Your task to perform on an android device: Open calendar and show me the fourth week of next month Image 0: 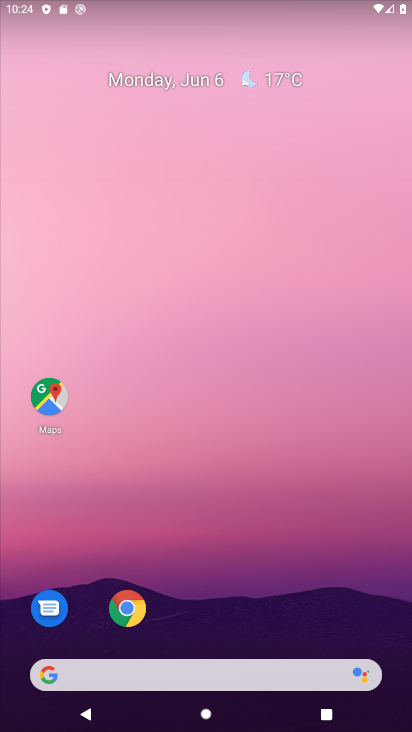
Step 0: drag from (222, 617) to (171, 98)
Your task to perform on an android device: Open calendar and show me the fourth week of next month Image 1: 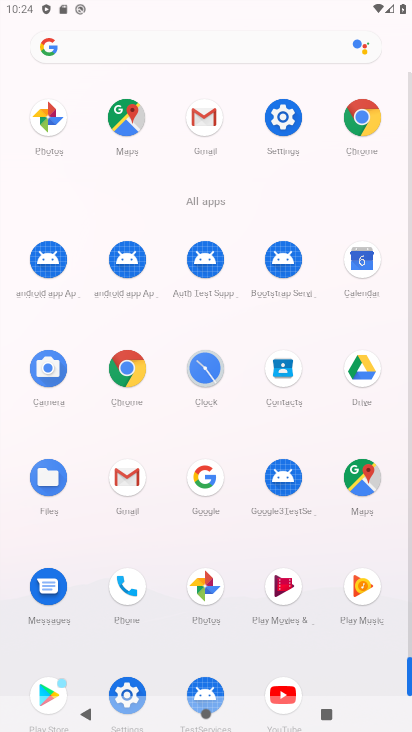
Step 1: click (378, 272)
Your task to perform on an android device: Open calendar and show me the fourth week of next month Image 2: 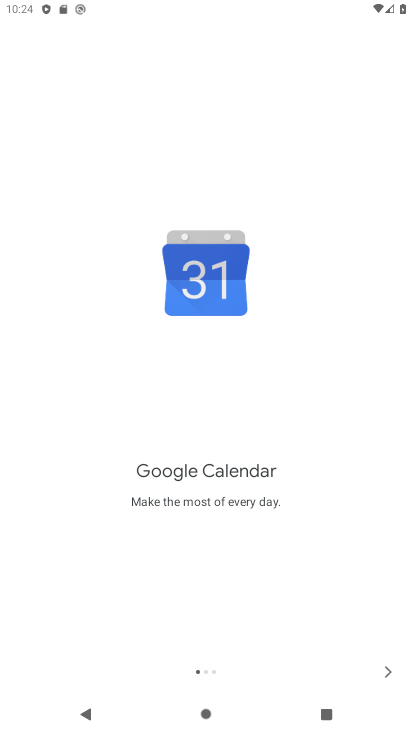
Step 2: click (394, 675)
Your task to perform on an android device: Open calendar and show me the fourth week of next month Image 3: 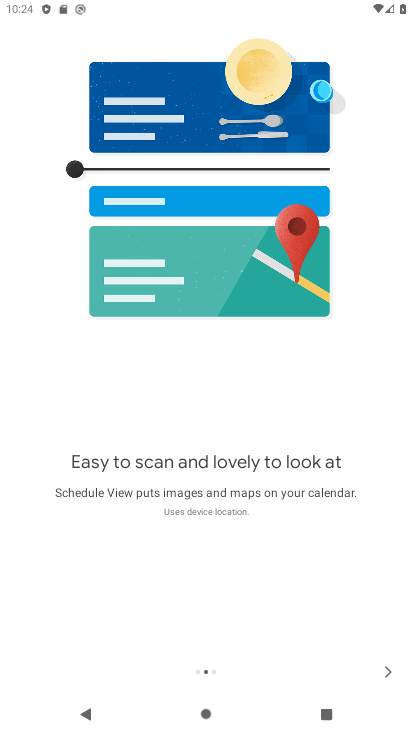
Step 3: click (392, 674)
Your task to perform on an android device: Open calendar and show me the fourth week of next month Image 4: 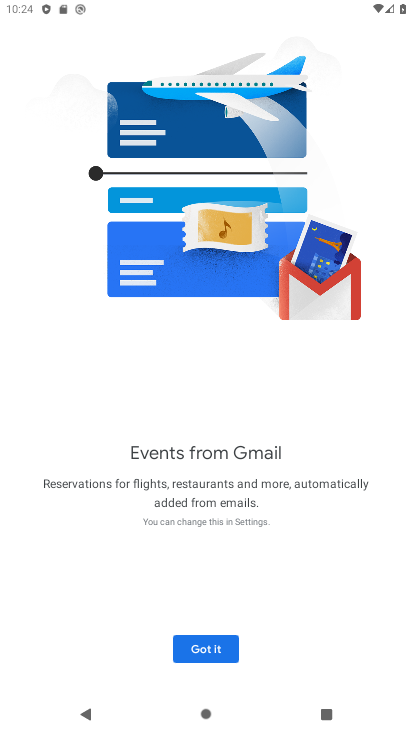
Step 4: click (204, 659)
Your task to perform on an android device: Open calendar and show me the fourth week of next month Image 5: 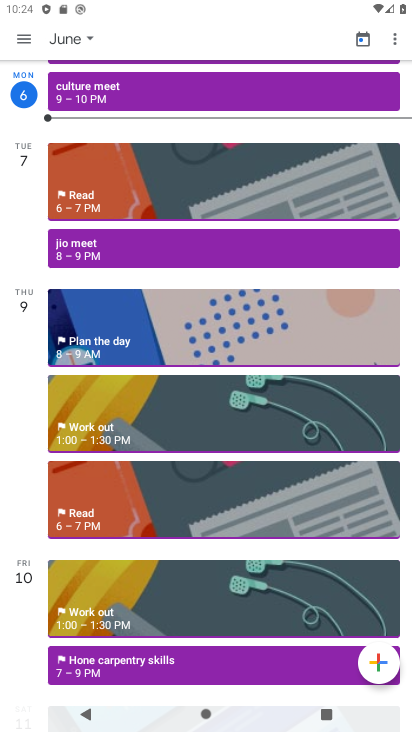
Step 5: click (90, 42)
Your task to perform on an android device: Open calendar and show me the fourth week of next month Image 6: 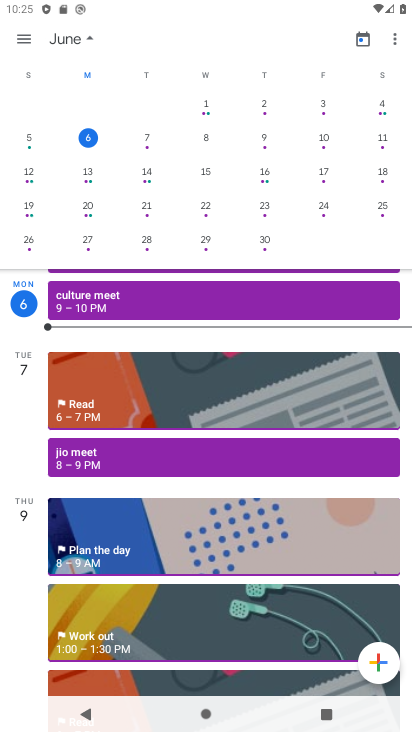
Step 6: drag from (305, 212) to (0, 239)
Your task to perform on an android device: Open calendar and show me the fourth week of next month Image 7: 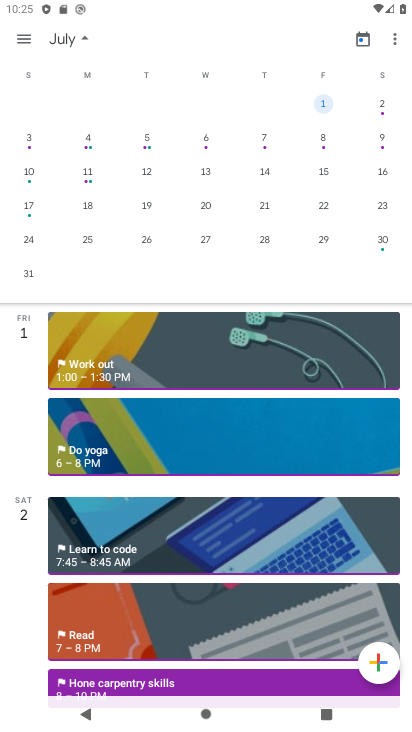
Step 7: click (32, 233)
Your task to perform on an android device: Open calendar and show me the fourth week of next month Image 8: 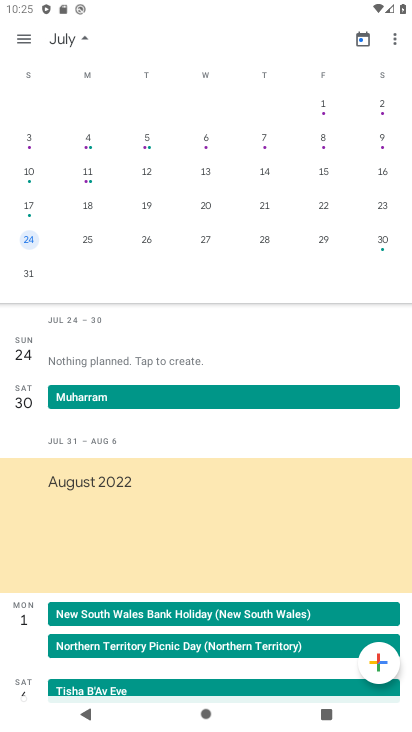
Step 8: task complete